Your task to perform on an android device: Open the calendar and show me this week's events? Image 0: 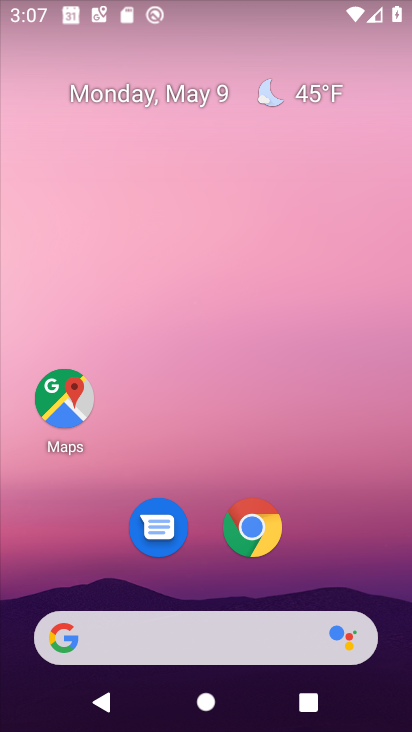
Step 0: drag from (263, 593) to (280, 243)
Your task to perform on an android device: Open the calendar and show me this week's events? Image 1: 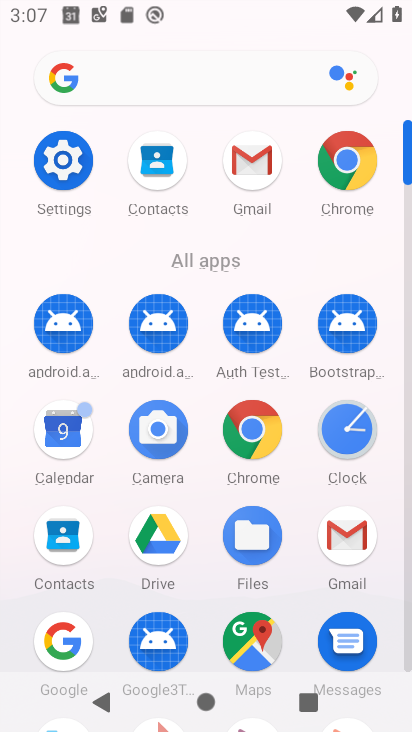
Step 1: click (66, 452)
Your task to perform on an android device: Open the calendar and show me this week's events? Image 2: 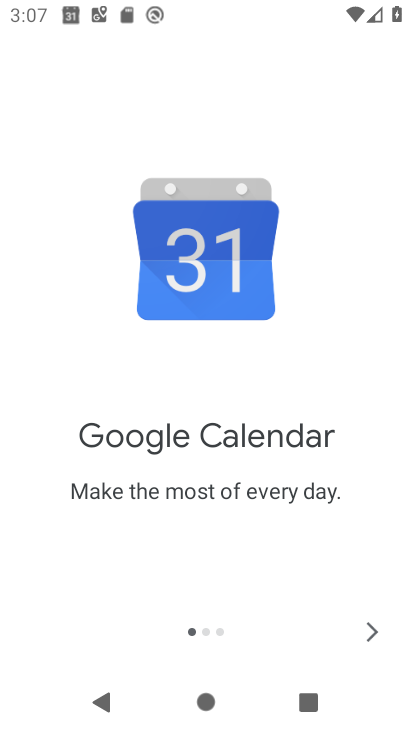
Step 2: click (366, 642)
Your task to perform on an android device: Open the calendar and show me this week's events? Image 3: 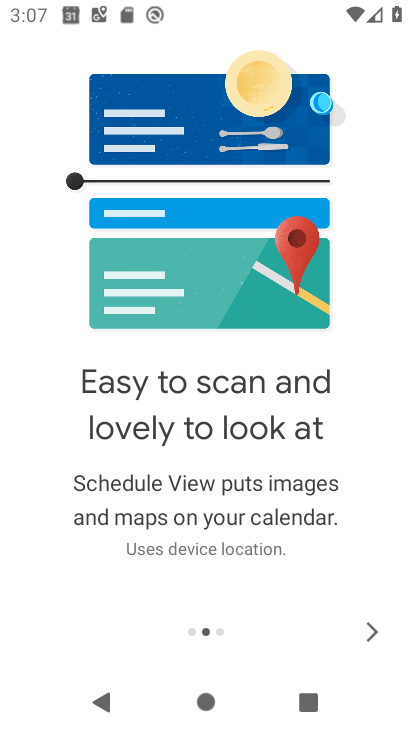
Step 3: click (371, 640)
Your task to perform on an android device: Open the calendar and show me this week's events? Image 4: 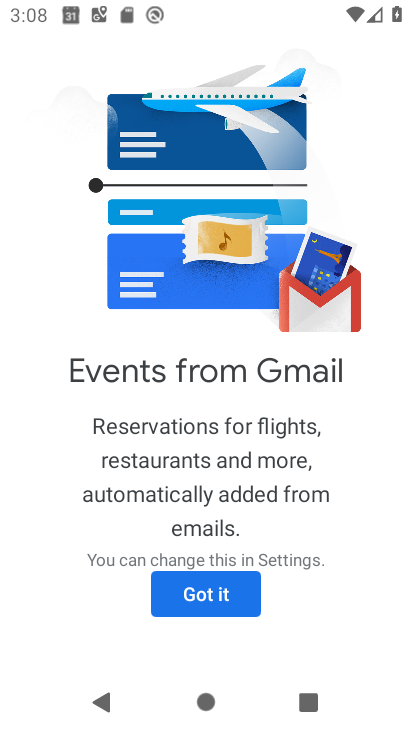
Step 4: click (202, 598)
Your task to perform on an android device: Open the calendar and show me this week's events? Image 5: 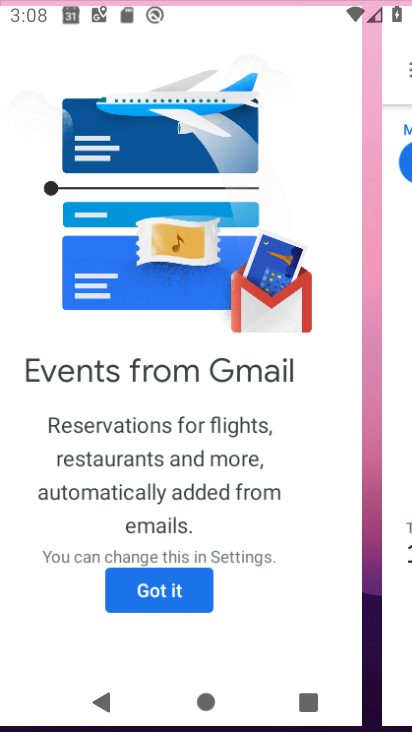
Step 5: click (206, 594)
Your task to perform on an android device: Open the calendar and show me this week's events? Image 6: 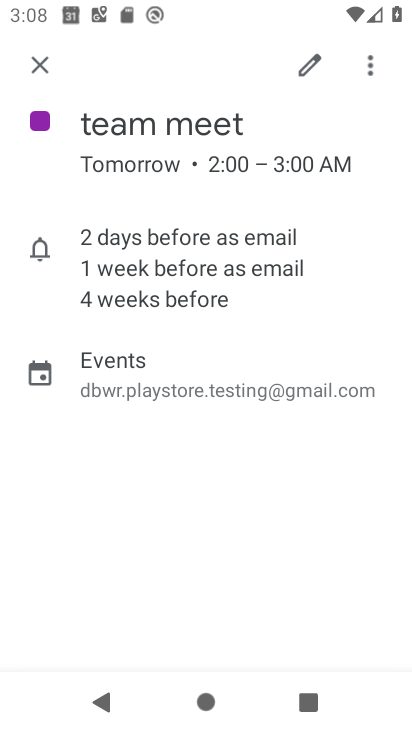
Step 6: click (47, 70)
Your task to perform on an android device: Open the calendar and show me this week's events? Image 7: 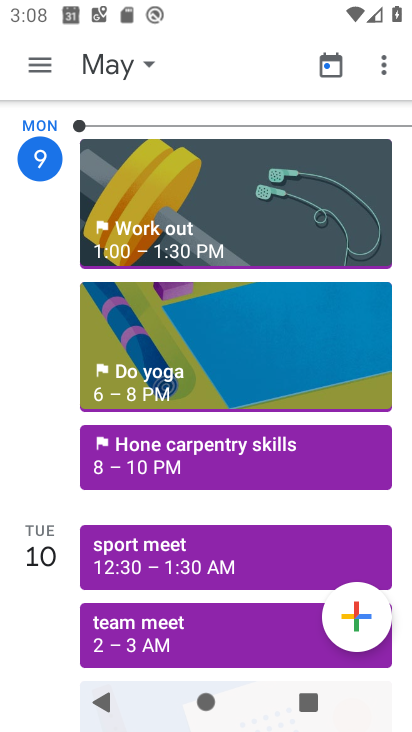
Step 7: click (144, 77)
Your task to perform on an android device: Open the calendar and show me this week's events? Image 8: 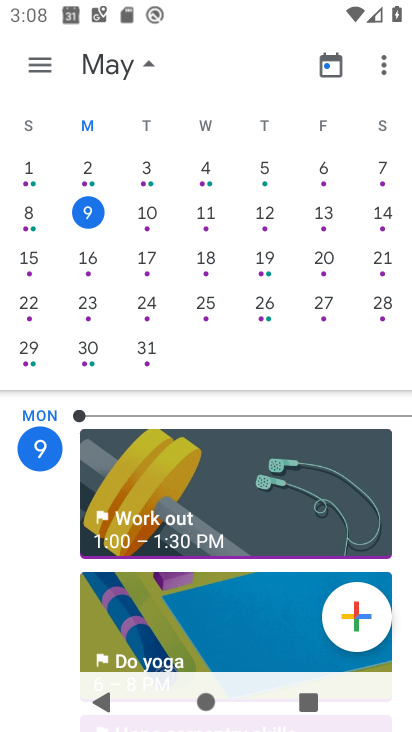
Step 8: task complete